Your task to perform on an android device: Do I have any events tomorrow? Image 0: 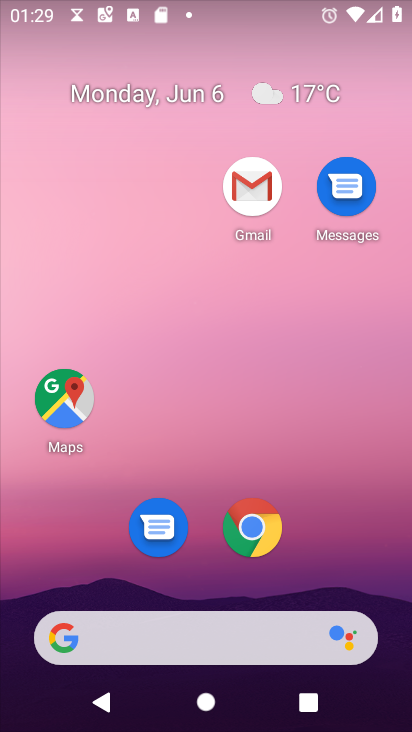
Step 0: click (134, 90)
Your task to perform on an android device: Do I have any events tomorrow? Image 1: 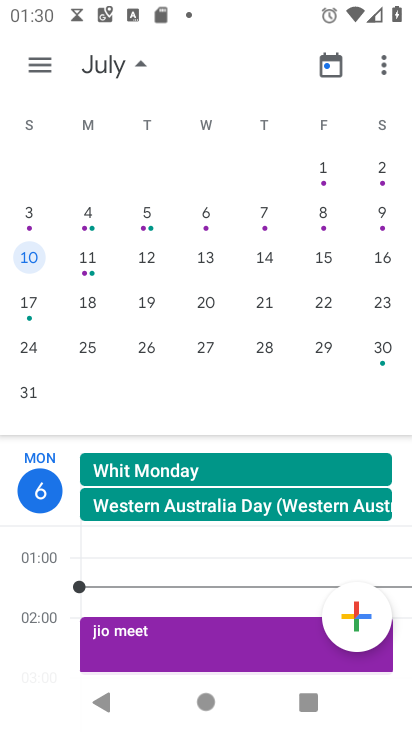
Step 1: click (35, 59)
Your task to perform on an android device: Do I have any events tomorrow? Image 2: 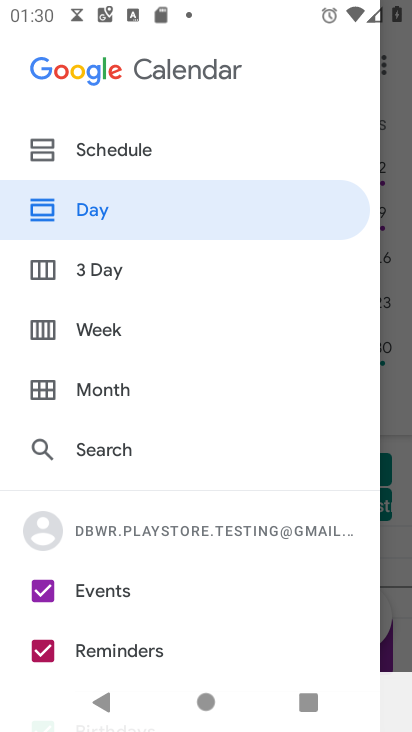
Step 2: click (116, 143)
Your task to perform on an android device: Do I have any events tomorrow? Image 3: 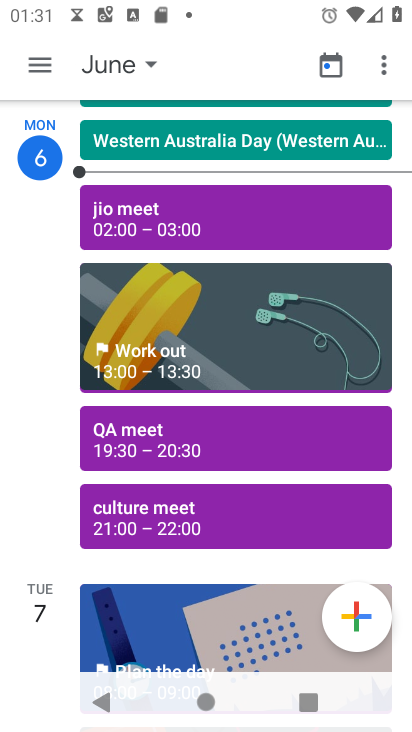
Step 3: task complete